Your task to perform on an android device: choose inbox layout in the gmail app Image 0: 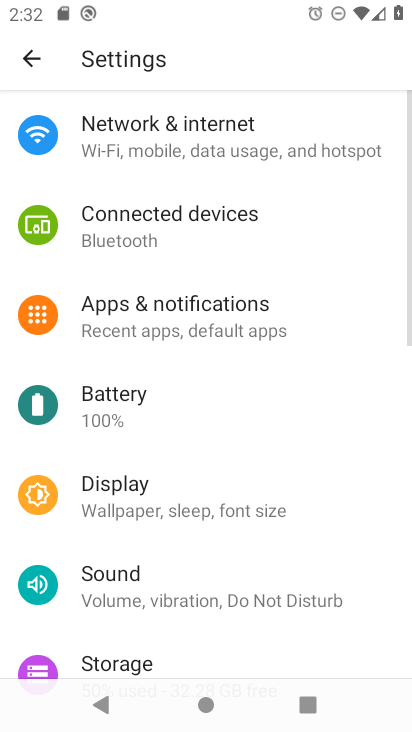
Step 0: press home button
Your task to perform on an android device: choose inbox layout in the gmail app Image 1: 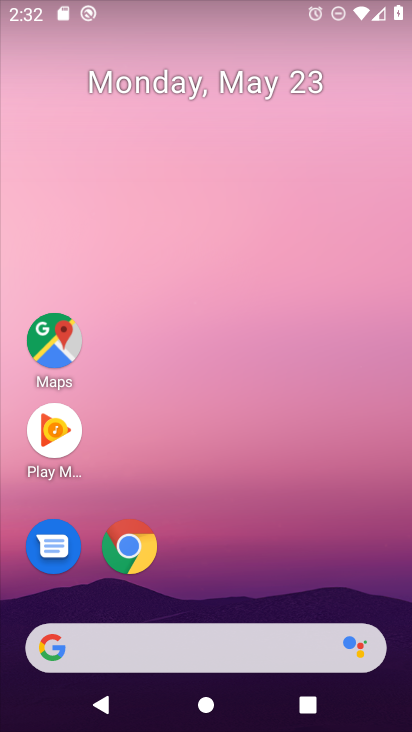
Step 1: drag from (204, 703) to (213, 133)
Your task to perform on an android device: choose inbox layout in the gmail app Image 2: 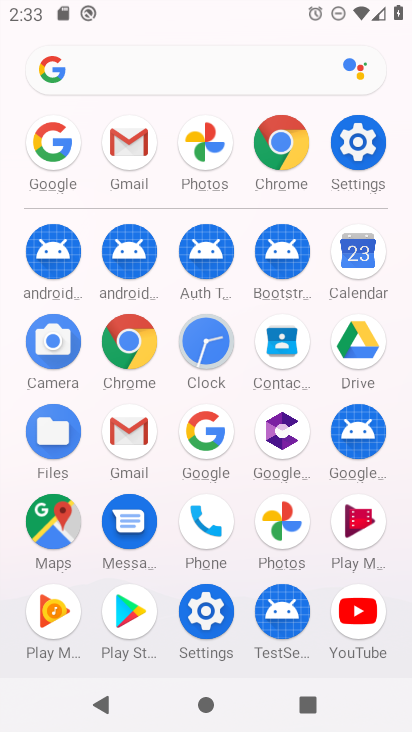
Step 2: click (125, 441)
Your task to perform on an android device: choose inbox layout in the gmail app Image 3: 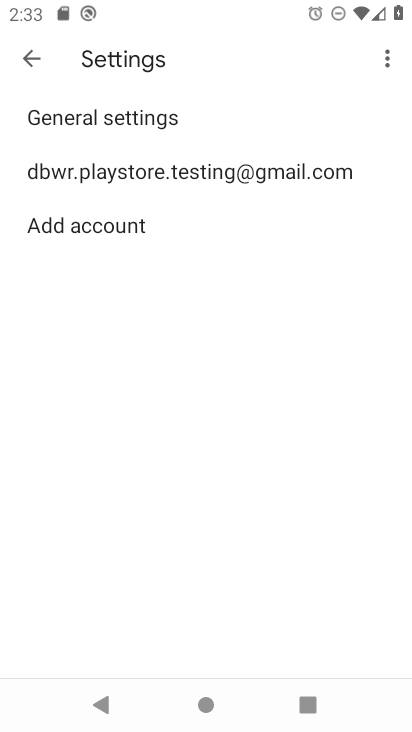
Step 3: click (54, 122)
Your task to perform on an android device: choose inbox layout in the gmail app Image 4: 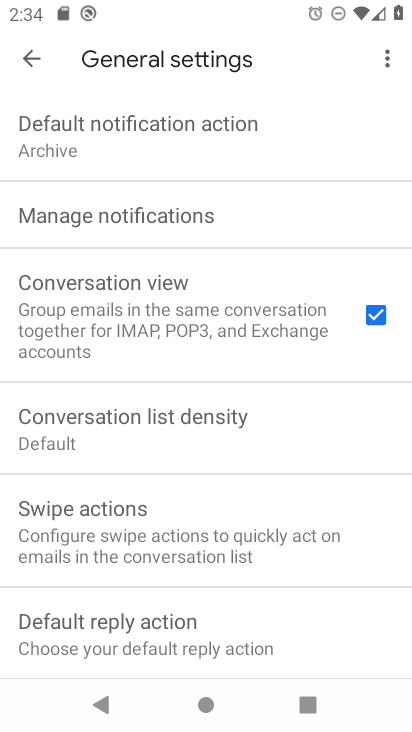
Step 4: task complete